Your task to perform on an android device: What's the weather? Image 0: 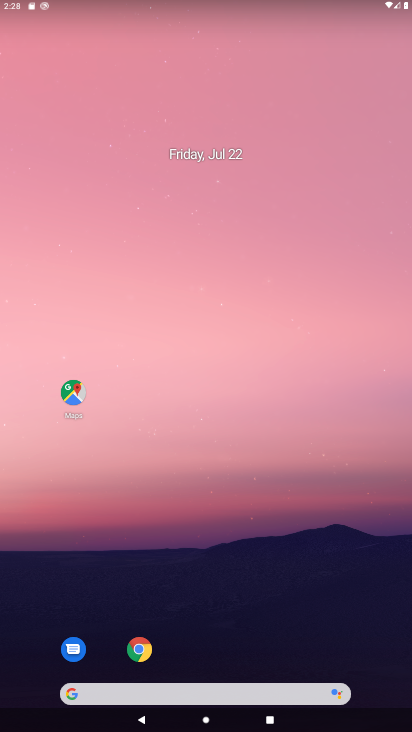
Step 0: drag from (229, 688) to (209, 149)
Your task to perform on an android device: What's the weather? Image 1: 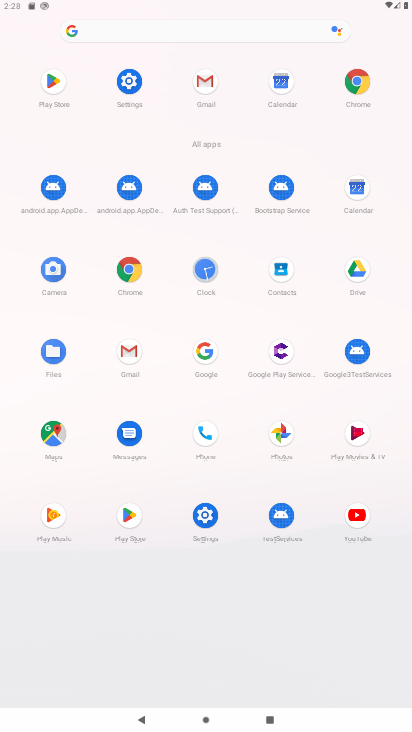
Step 1: click (205, 349)
Your task to perform on an android device: What's the weather? Image 2: 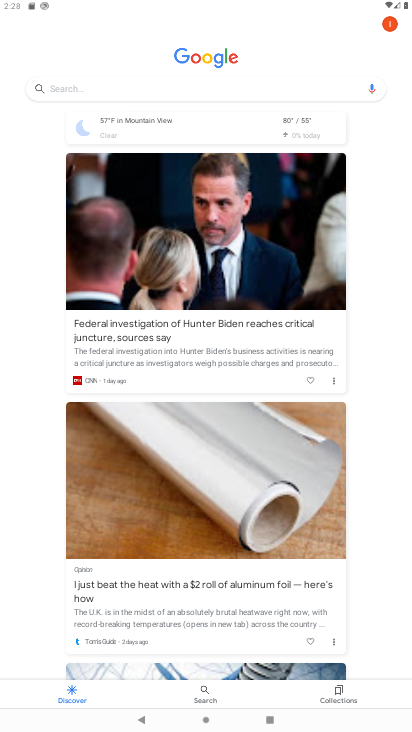
Step 2: click (115, 117)
Your task to perform on an android device: What's the weather? Image 3: 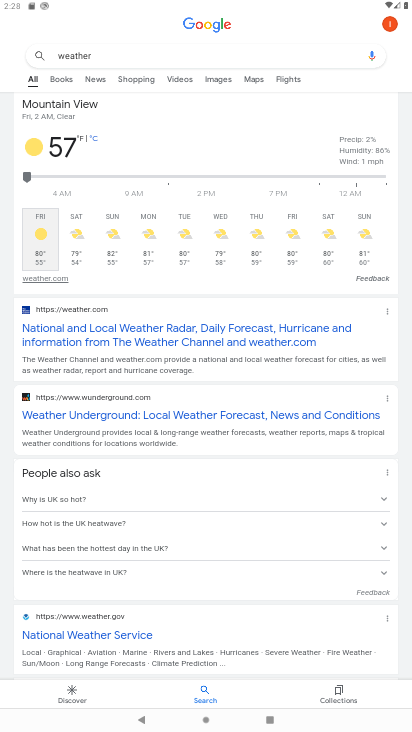
Step 3: task complete